Your task to perform on an android device: Search for Italian restaurants on Maps Image 0: 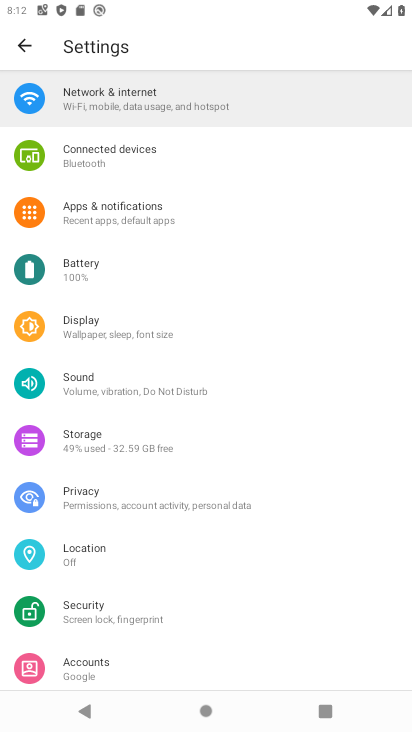
Step 0: press home button
Your task to perform on an android device: Search for Italian restaurants on Maps Image 1: 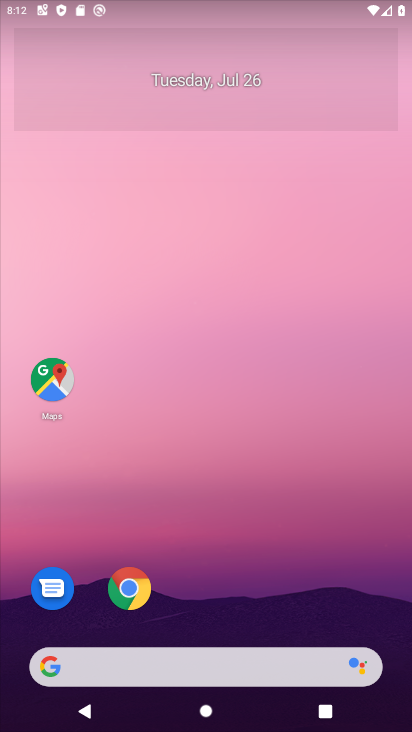
Step 1: click (181, 653)
Your task to perform on an android device: Search for Italian restaurants on Maps Image 2: 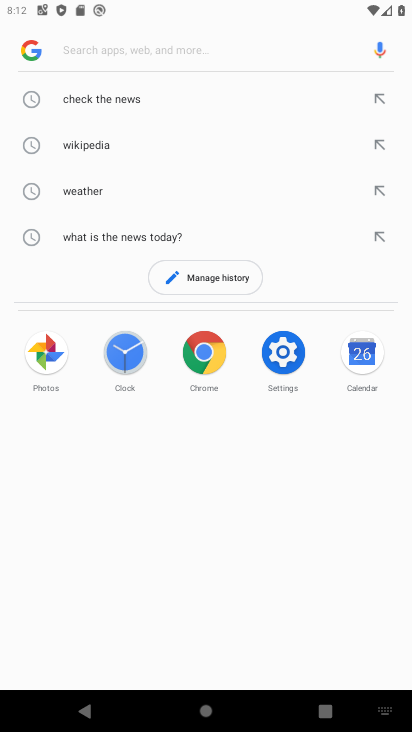
Step 2: type " Italian restaurants "
Your task to perform on an android device: Search for Italian restaurants on Maps Image 3: 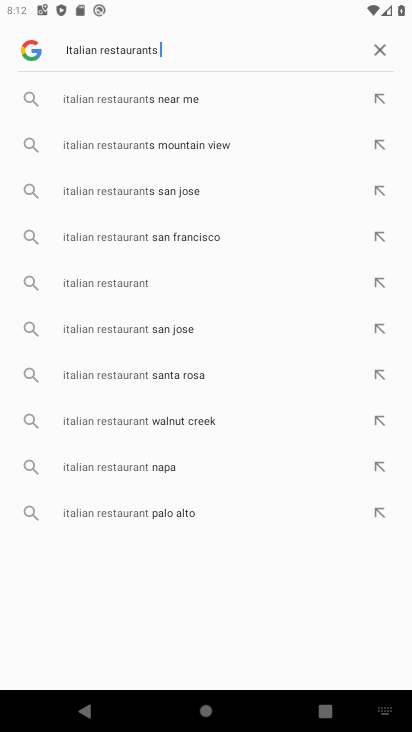
Step 3: press enter
Your task to perform on an android device: Search for Italian restaurants on Maps Image 4: 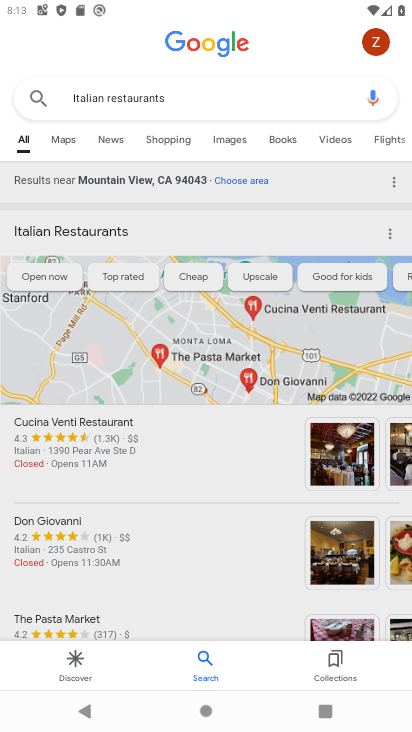
Step 4: task complete